Your task to perform on an android device: toggle improve location accuracy Image 0: 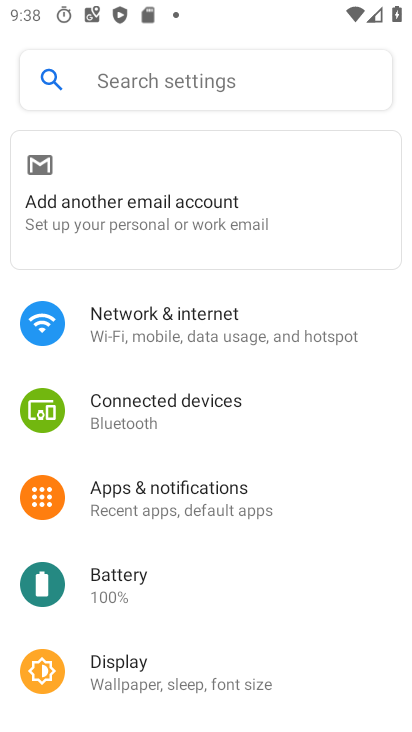
Step 0: drag from (180, 629) to (215, 22)
Your task to perform on an android device: toggle improve location accuracy Image 1: 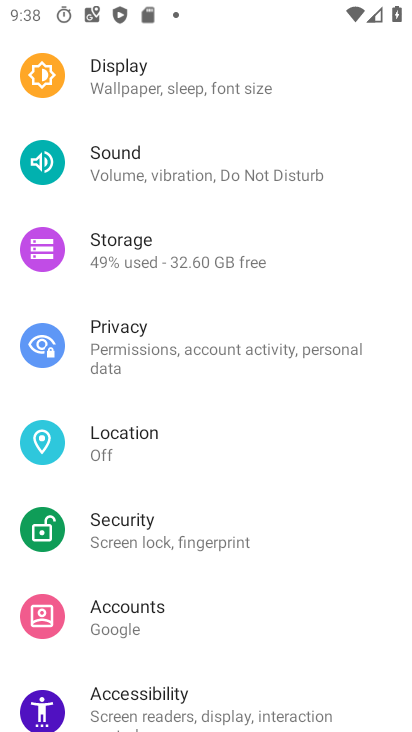
Step 1: click (101, 441)
Your task to perform on an android device: toggle improve location accuracy Image 2: 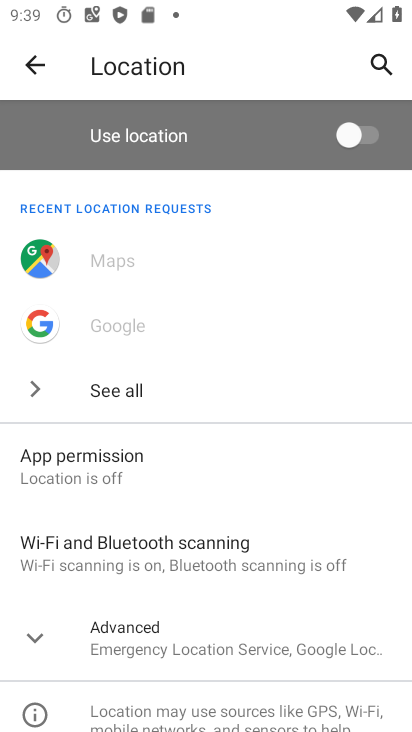
Step 2: drag from (169, 641) to (113, 282)
Your task to perform on an android device: toggle improve location accuracy Image 3: 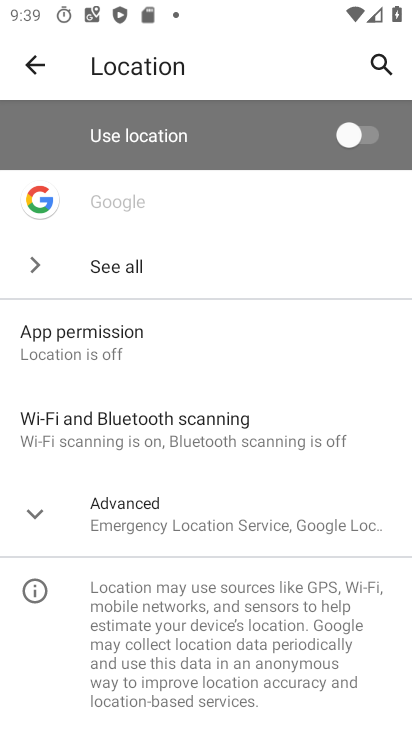
Step 3: click (168, 522)
Your task to perform on an android device: toggle improve location accuracy Image 4: 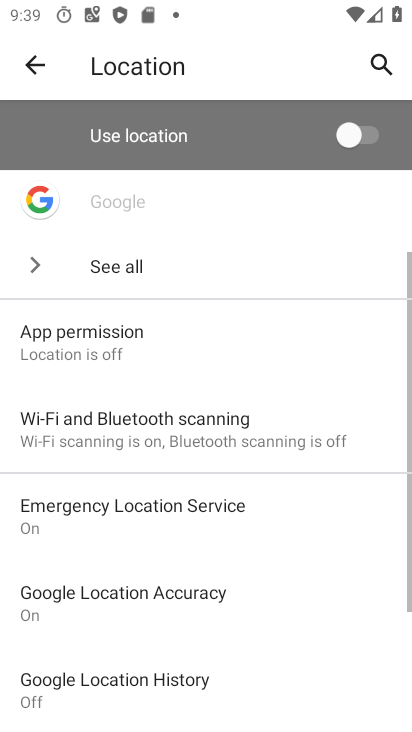
Step 4: drag from (217, 589) to (215, 293)
Your task to perform on an android device: toggle improve location accuracy Image 5: 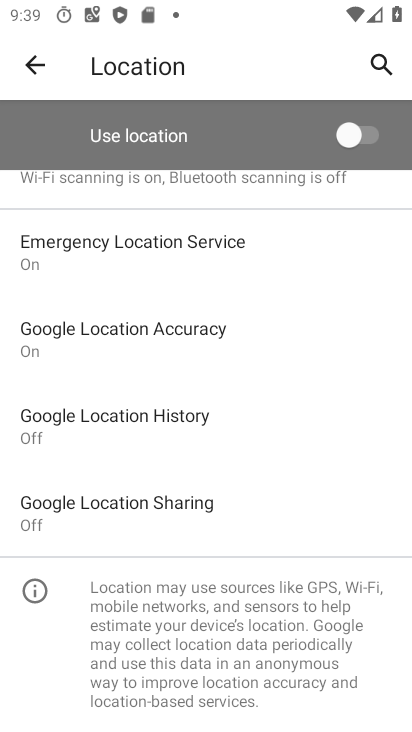
Step 5: click (201, 339)
Your task to perform on an android device: toggle improve location accuracy Image 6: 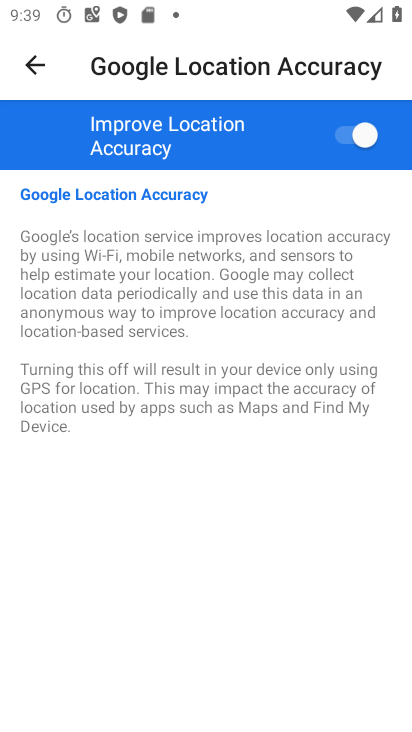
Step 6: click (348, 138)
Your task to perform on an android device: toggle improve location accuracy Image 7: 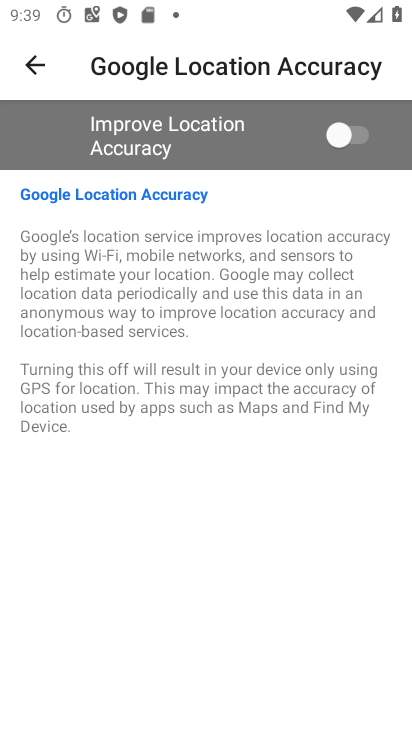
Step 7: task complete